Your task to perform on an android device: change the clock style Image 0: 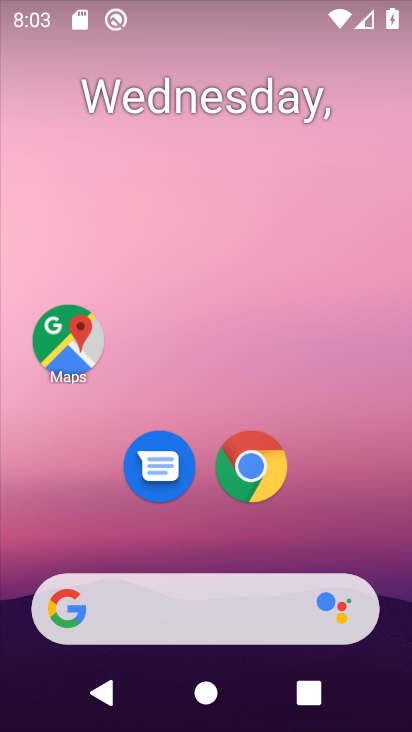
Step 0: drag from (214, 720) to (224, 111)
Your task to perform on an android device: change the clock style Image 1: 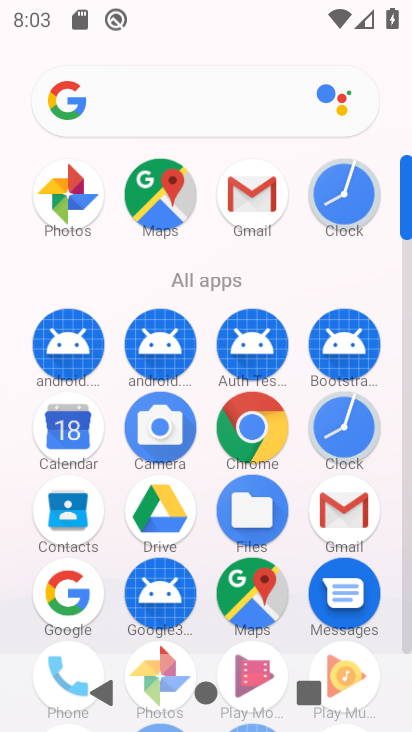
Step 1: click (349, 427)
Your task to perform on an android device: change the clock style Image 2: 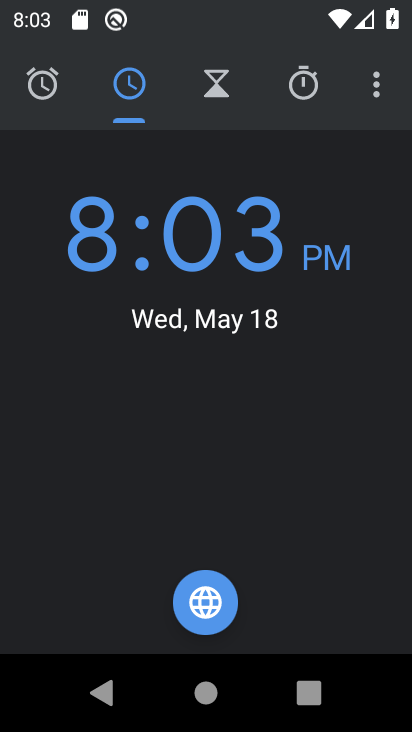
Step 2: click (378, 92)
Your task to perform on an android device: change the clock style Image 3: 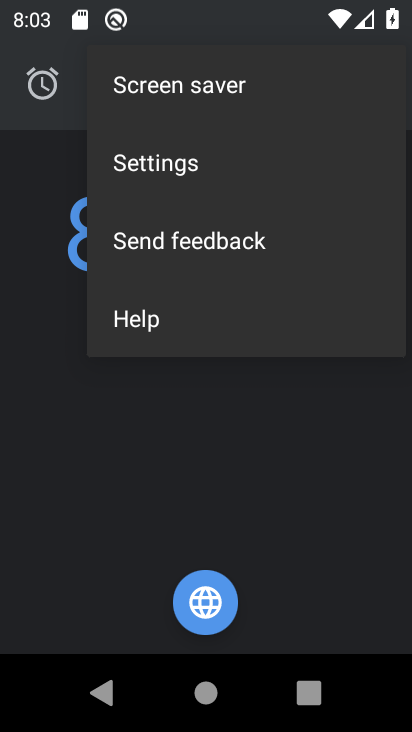
Step 3: click (156, 165)
Your task to perform on an android device: change the clock style Image 4: 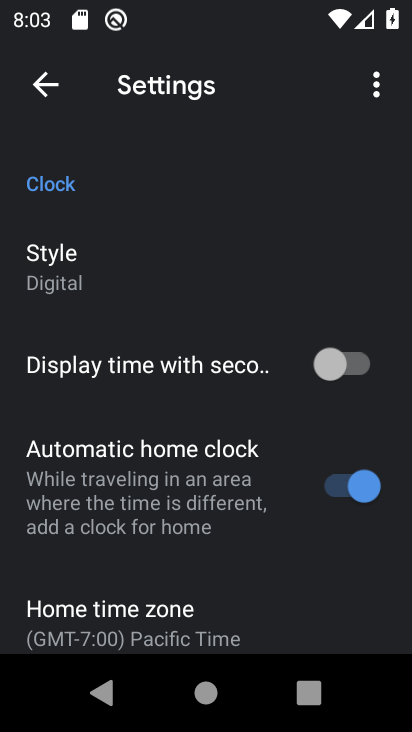
Step 4: click (62, 263)
Your task to perform on an android device: change the clock style Image 5: 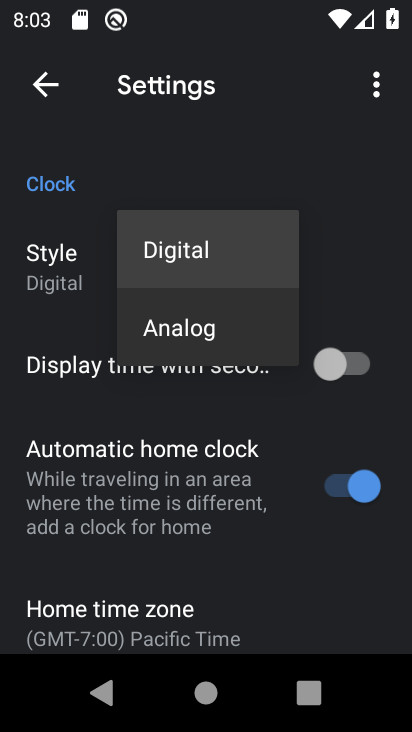
Step 5: click (176, 317)
Your task to perform on an android device: change the clock style Image 6: 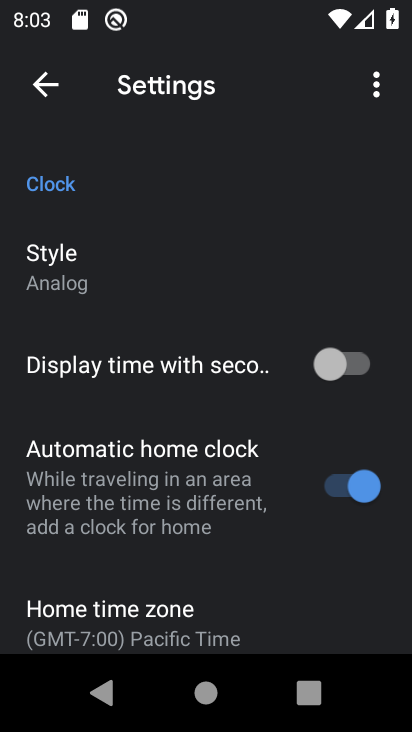
Step 6: task complete